Your task to perform on an android device: add a label to a message in the gmail app Image 0: 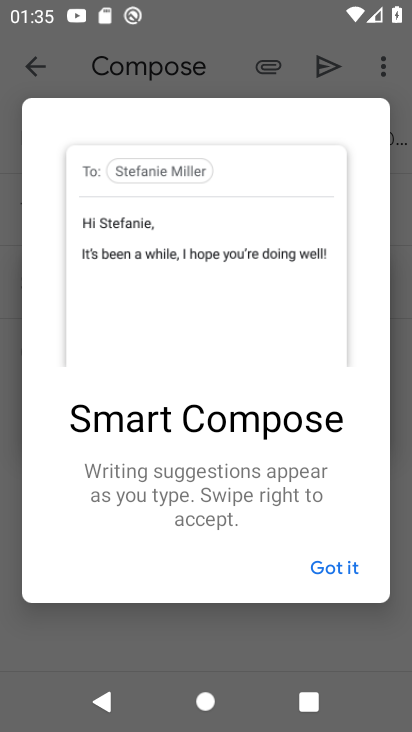
Step 0: click (338, 565)
Your task to perform on an android device: add a label to a message in the gmail app Image 1: 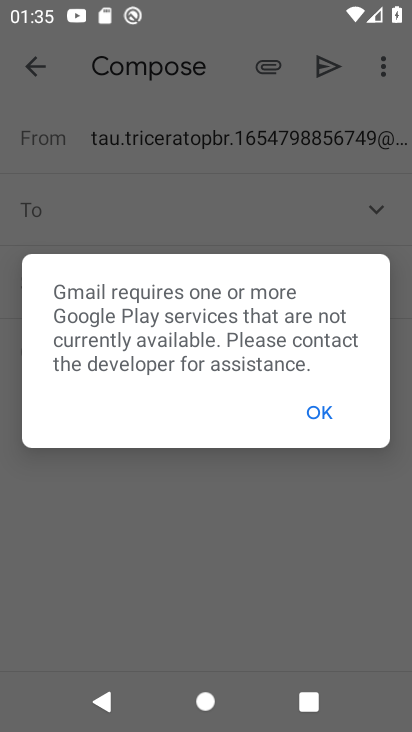
Step 1: click (317, 411)
Your task to perform on an android device: add a label to a message in the gmail app Image 2: 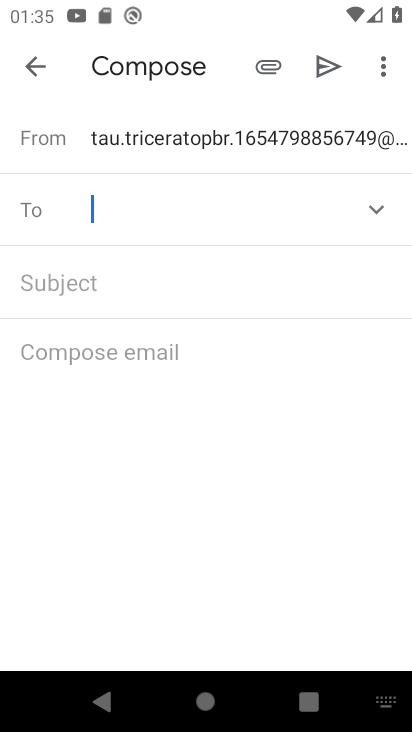
Step 2: click (28, 48)
Your task to perform on an android device: add a label to a message in the gmail app Image 3: 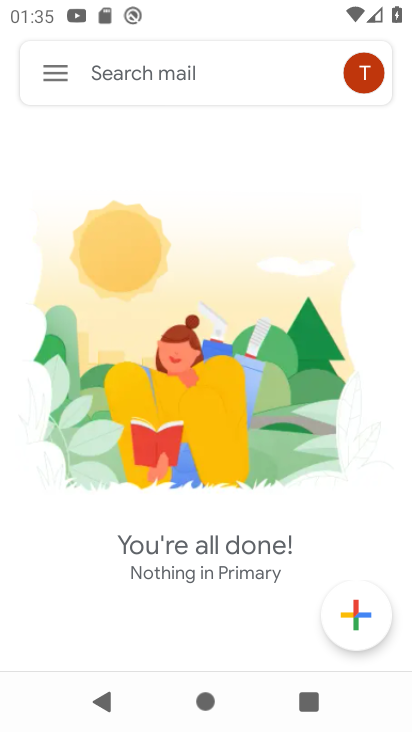
Step 3: click (53, 66)
Your task to perform on an android device: add a label to a message in the gmail app Image 4: 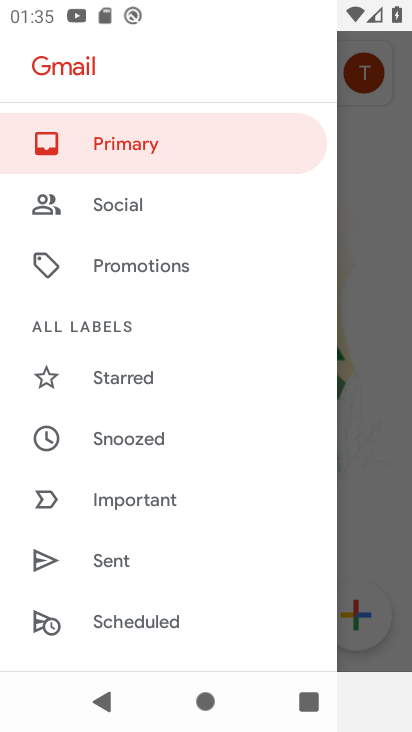
Step 4: drag from (176, 595) to (150, 223)
Your task to perform on an android device: add a label to a message in the gmail app Image 5: 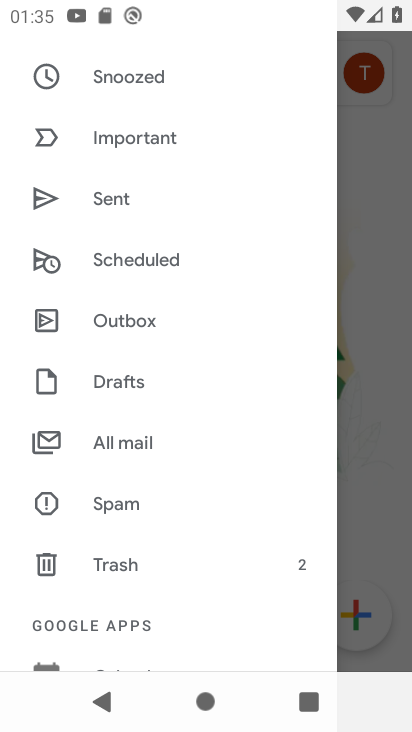
Step 5: drag from (204, 484) to (194, 251)
Your task to perform on an android device: add a label to a message in the gmail app Image 6: 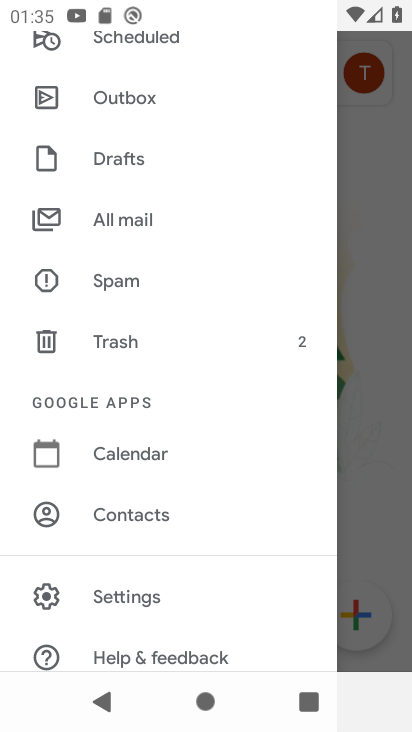
Step 6: click (148, 224)
Your task to perform on an android device: add a label to a message in the gmail app Image 7: 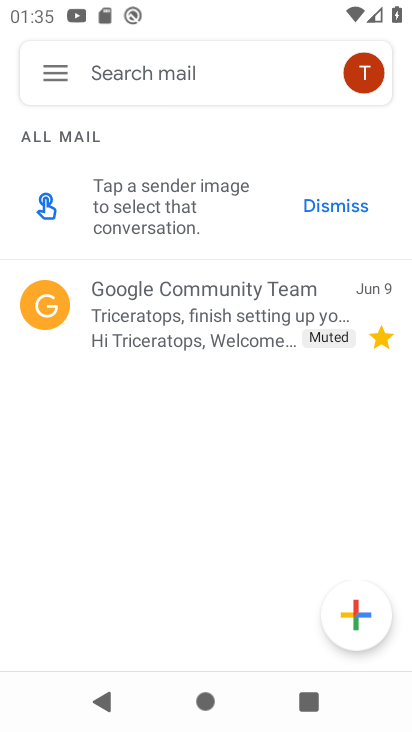
Step 7: click (54, 73)
Your task to perform on an android device: add a label to a message in the gmail app Image 8: 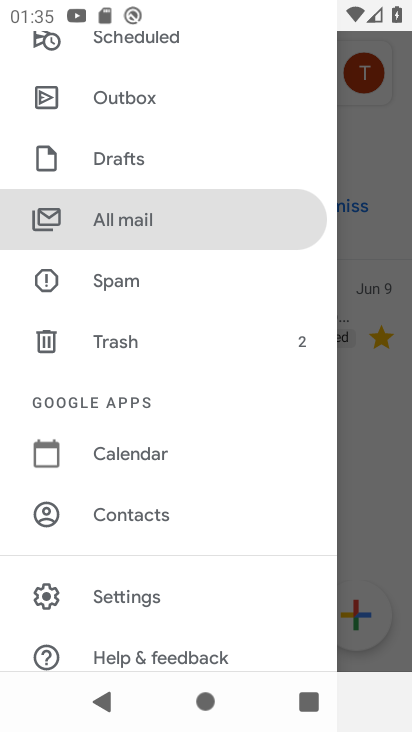
Step 8: click (156, 210)
Your task to perform on an android device: add a label to a message in the gmail app Image 9: 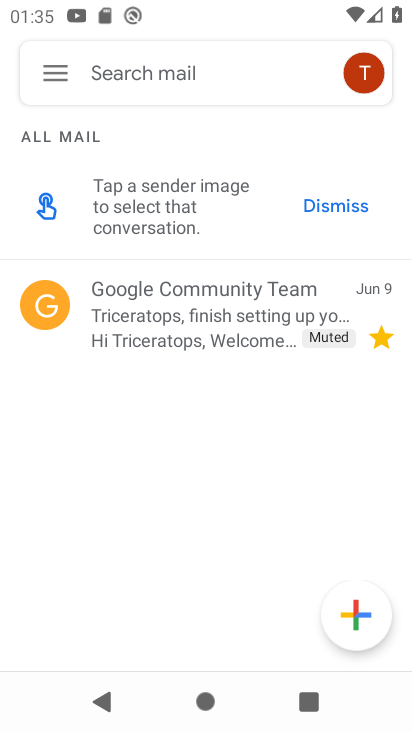
Step 9: click (282, 298)
Your task to perform on an android device: add a label to a message in the gmail app Image 10: 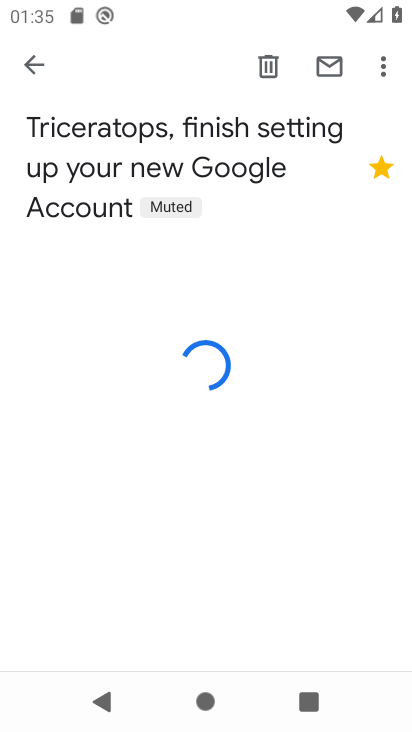
Step 10: click (381, 65)
Your task to perform on an android device: add a label to a message in the gmail app Image 11: 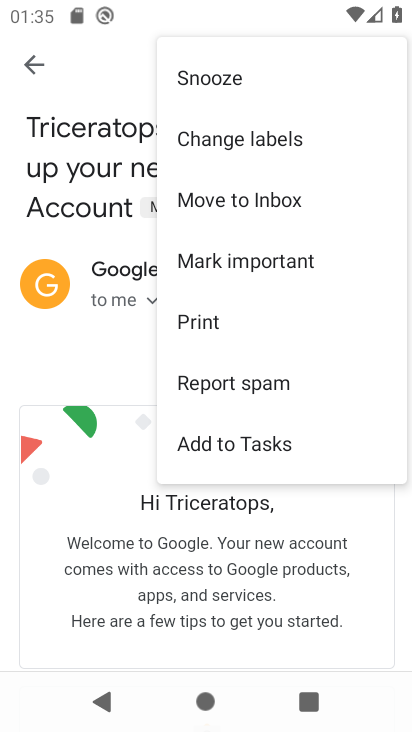
Step 11: click (295, 131)
Your task to perform on an android device: add a label to a message in the gmail app Image 12: 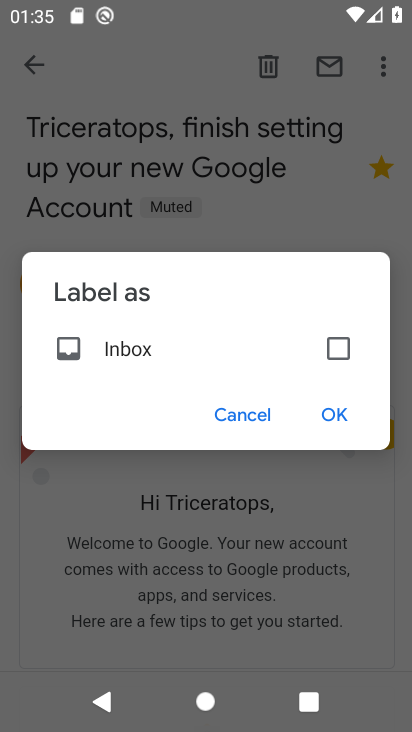
Step 12: click (345, 352)
Your task to perform on an android device: add a label to a message in the gmail app Image 13: 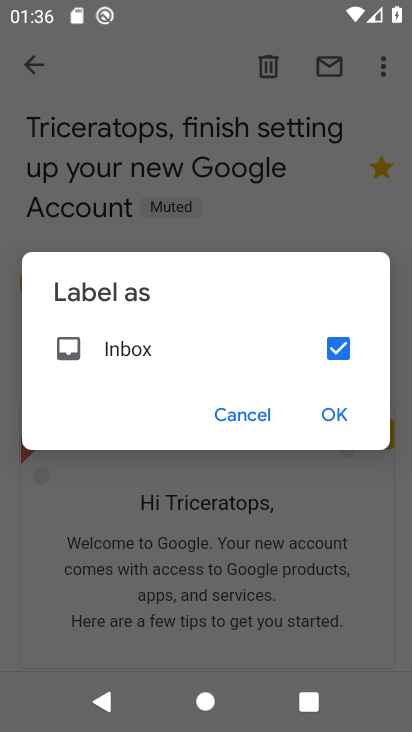
Step 13: click (334, 410)
Your task to perform on an android device: add a label to a message in the gmail app Image 14: 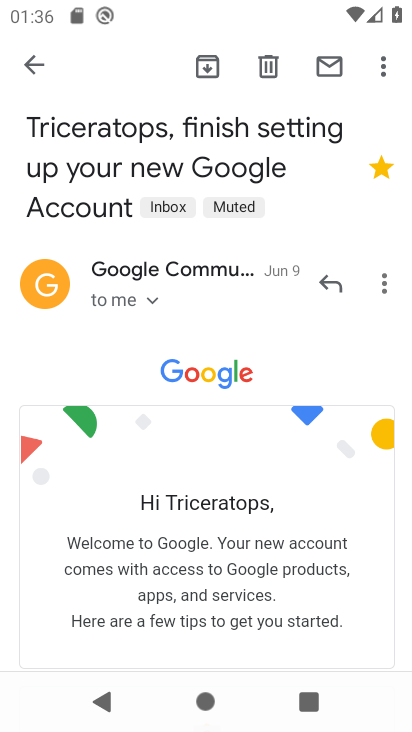
Step 14: task complete